Your task to perform on an android device: turn off wifi Image 0: 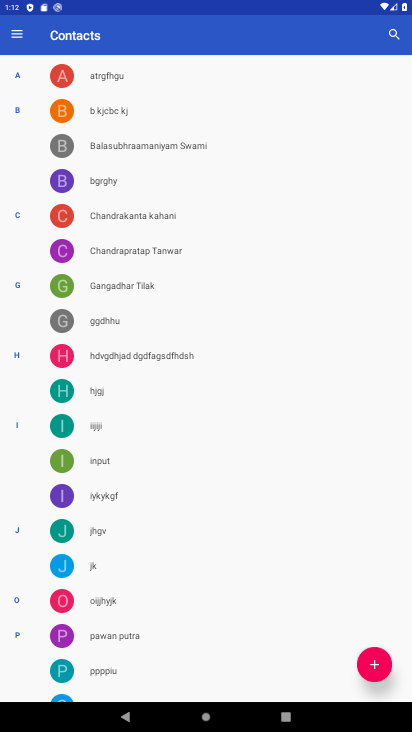
Step 0: press home button
Your task to perform on an android device: turn off wifi Image 1: 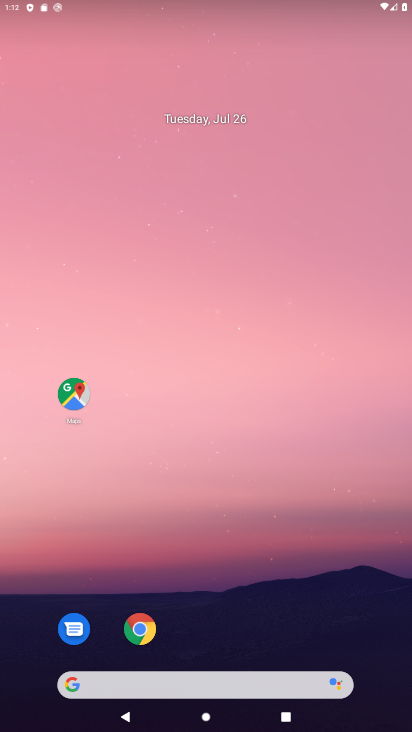
Step 1: drag from (410, 694) to (317, 69)
Your task to perform on an android device: turn off wifi Image 2: 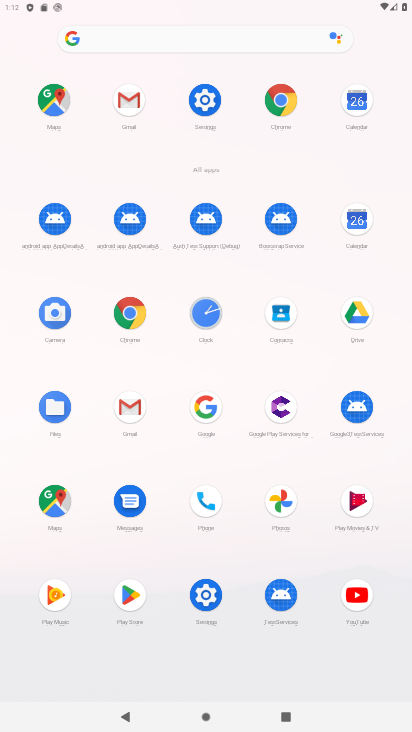
Step 2: click (207, 100)
Your task to perform on an android device: turn off wifi Image 3: 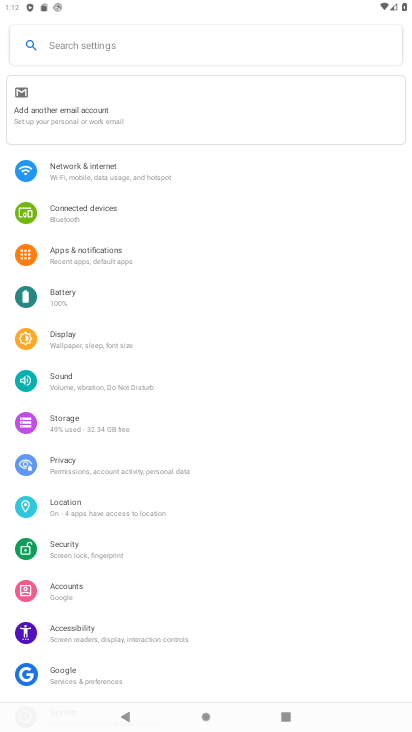
Step 3: click (73, 175)
Your task to perform on an android device: turn off wifi Image 4: 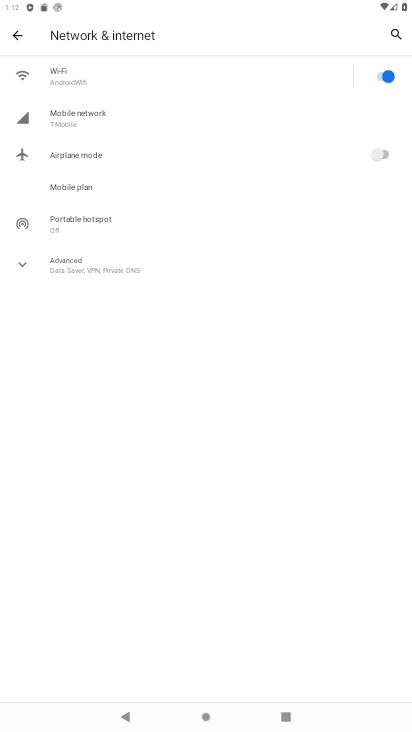
Step 4: click (381, 74)
Your task to perform on an android device: turn off wifi Image 5: 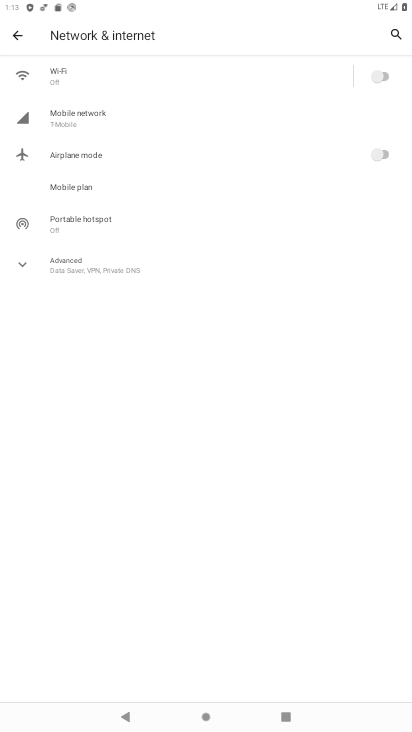
Step 5: task complete